Your task to perform on an android device: turn on airplane mode Image 0: 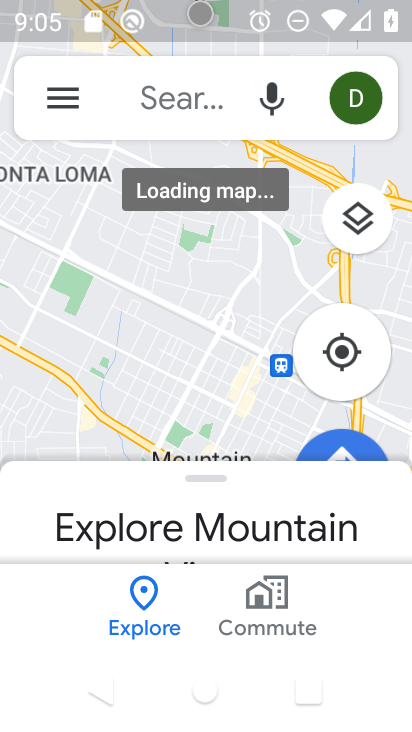
Step 0: press home button
Your task to perform on an android device: turn on airplane mode Image 1: 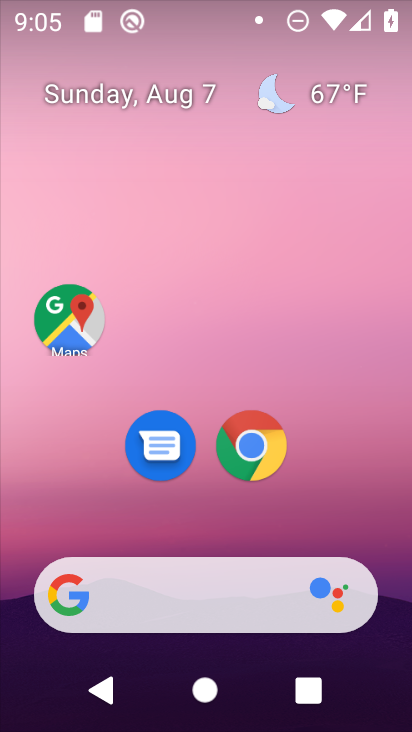
Step 1: drag from (231, 15) to (267, 458)
Your task to perform on an android device: turn on airplane mode Image 2: 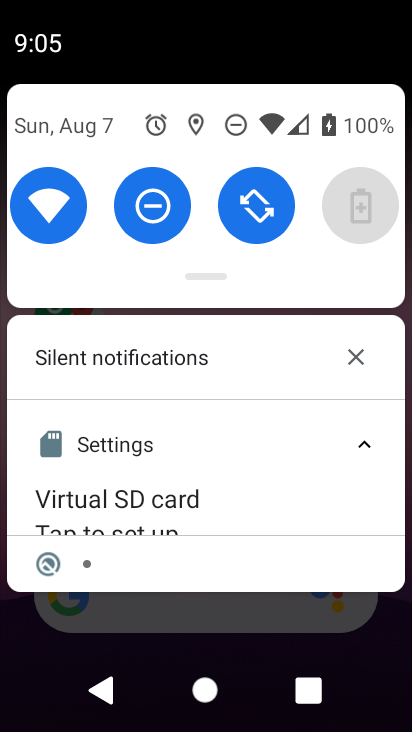
Step 2: drag from (250, 287) to (242, 643)
Your task to perform on an android device: turn on airplane mode Image 3: 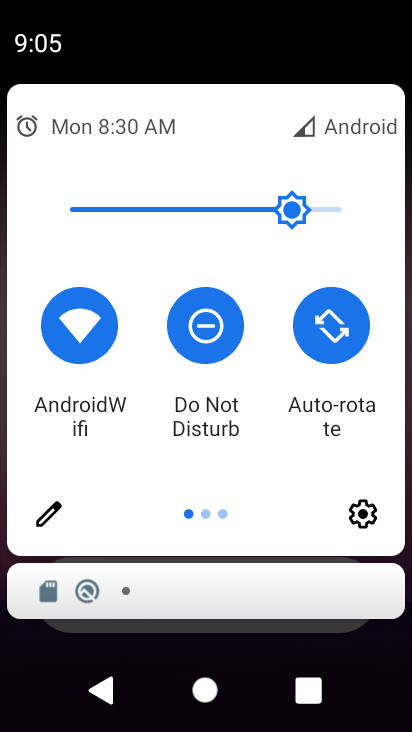
Step 3: drag from (355, 384) to (36, 388)
Your task to perform on an android device: turn on airplane mode Image 4: 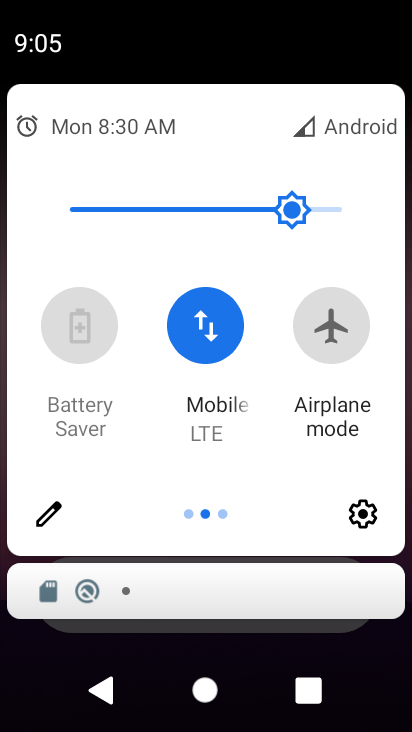
Step 4: click (334, 324)
Your task to perform on an android device: turn on airplane mode Image 5: 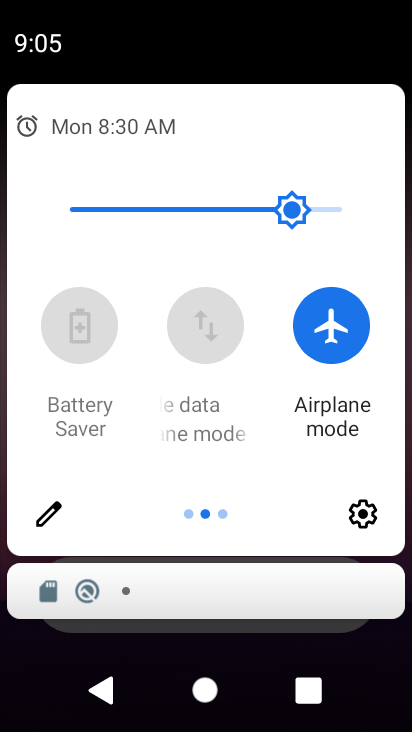
Step 5: task complete